Your task to perform on an android device: Search for logitech g903 on newegg, select the first entry, add it to the cart, then select checkout. Image 0: 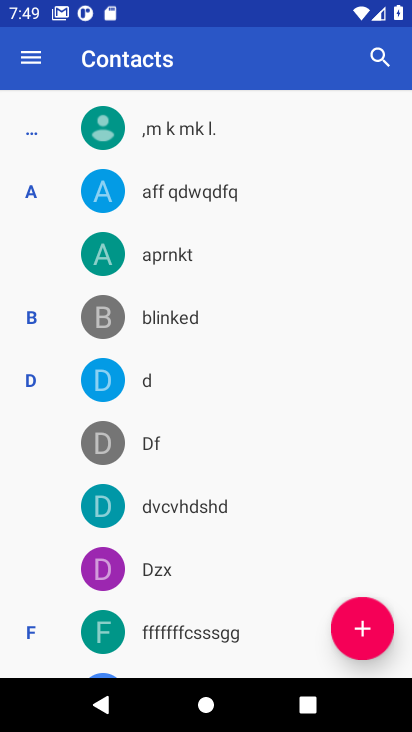
Step 0: press home button
Your task to perform on an android device: Search for logitech g903 on newegg, select the first entry, add it to the cart, then select checkout. Image 1: 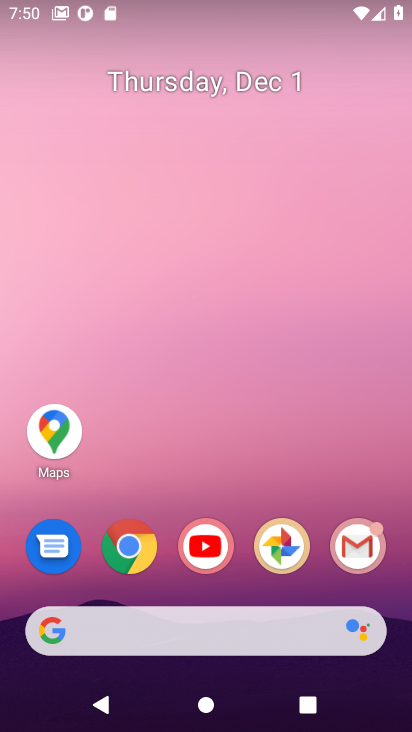
Step 1: click (133, 552)
Your task to perform on an android device: Search for logitech g903 on newegg, select the first entry, add it to the cart, then select checkout. Image 2: 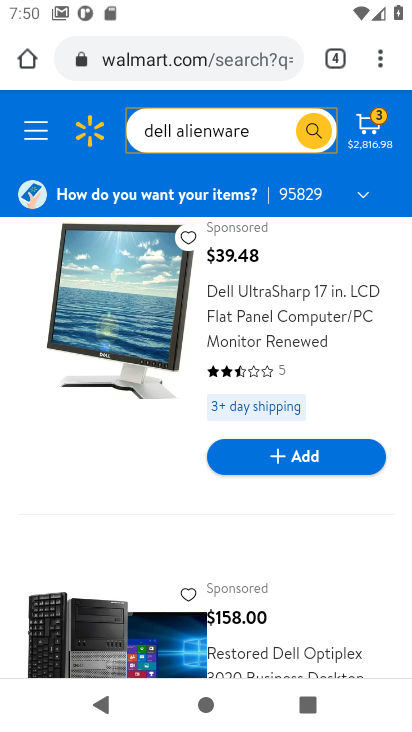
Step 2: click (173, 57)
Your task to perform on an android device: Search for logitech g903 on newegg, select the first entry, add it to the cart, then select checkout. Image 3: 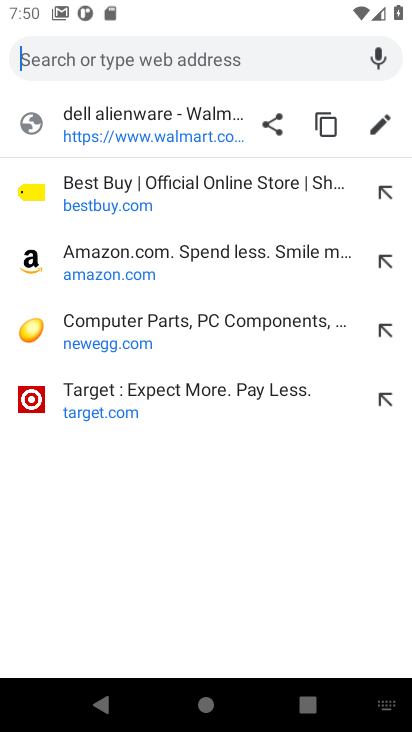
Step 3: click (101, 322)
Your task to perform on an android device: Search for logitech g903 on newegg, select the first entry, add it to the cart, then select checkout. Image 4: 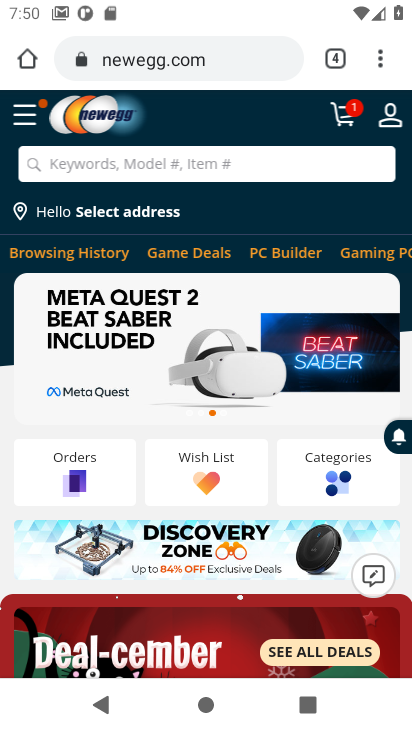
Step 4: click (114, 173)
Your task to perform on an android device: Search for logitech g903 on newegg, select the first entry, add it to the cart, then select checkout. Image 5: 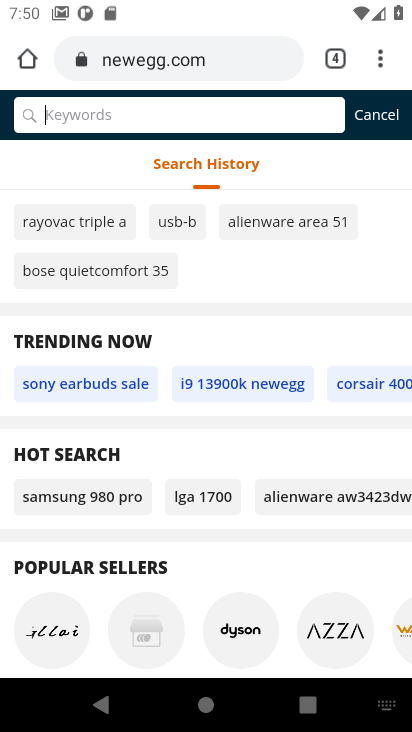
Step 5: type "logitech g903"
Your task to perform on an android device: Search for logitech g903 on newegg, select the first entry, add it to the cart, then select checkout. Image 6: 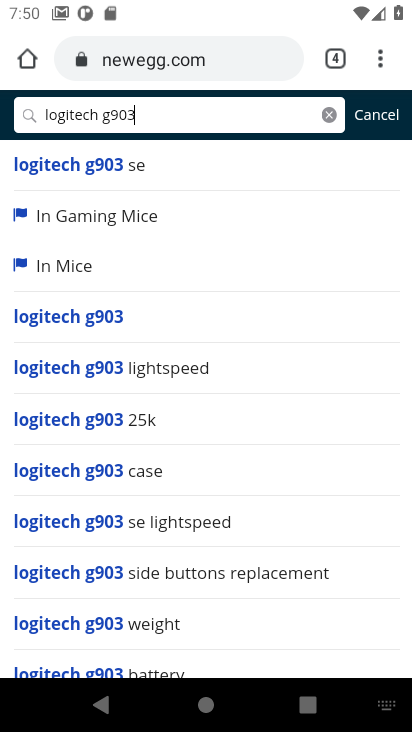
Step 6: click (64, 321)
Your task to perform on an android device: Search for logitech g903 on newegg, select the first entry, add it to the cart, then select checkout. Image 7: 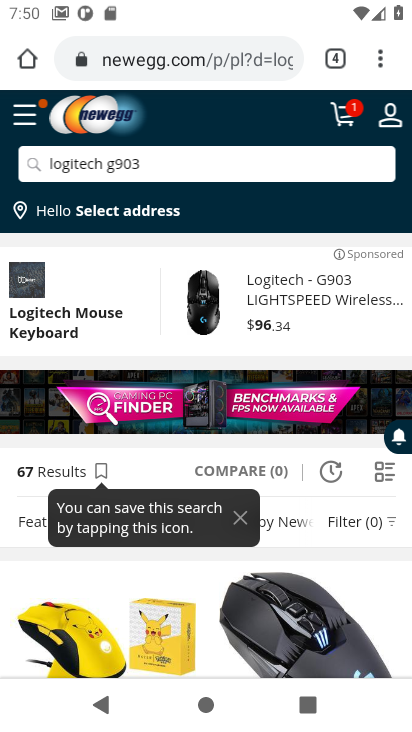
Step 7: task complete